Your task to perform on an android device: What's the weather going to be this weekend? Image 0: 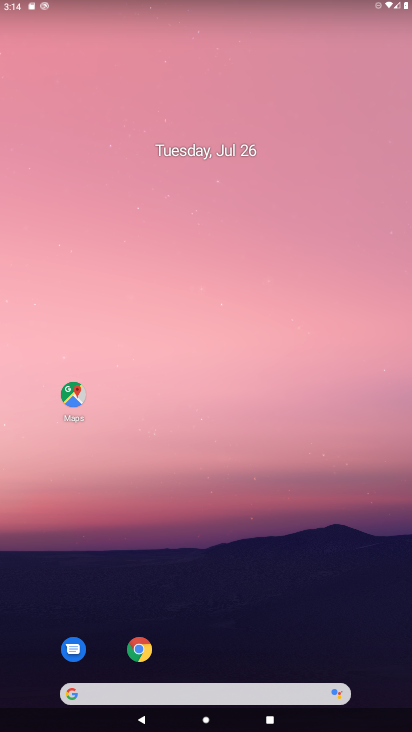
Step 0: drag from (210, 688) to (198, 198)
Your task to perform on an android device: What's the weather going to be this weekend? Image 1: 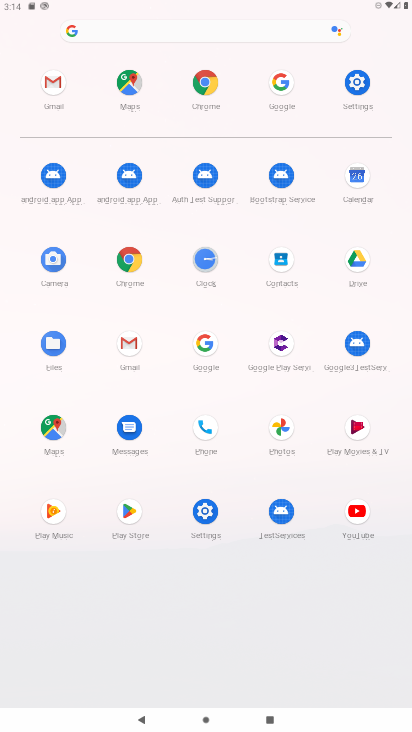
Step 1: click (134, 272)
Your task to perform on an android device: What's the weather going to be this weekend? Image 2: 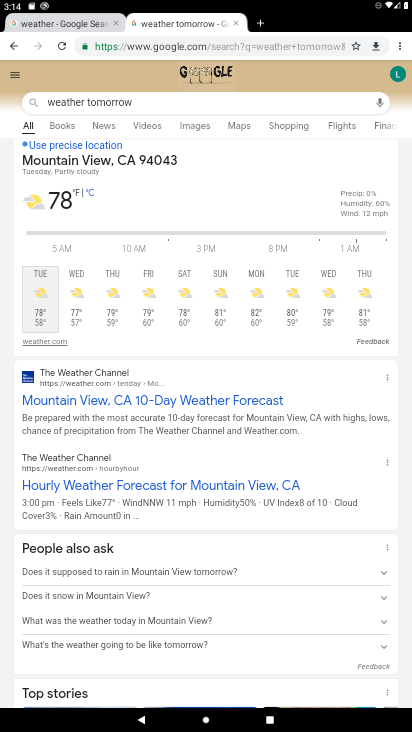
Step 2: click (157, 49)
Your task to perform on an android device: What's the weather going to be this weekend? Image 3: 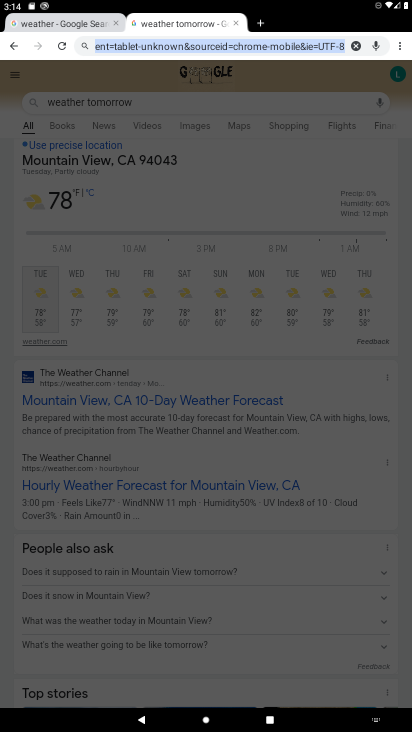
Step 3: type "weather this weekend"
Your task to perform on an android device: What's the weather going to be this weekend? Image 4: 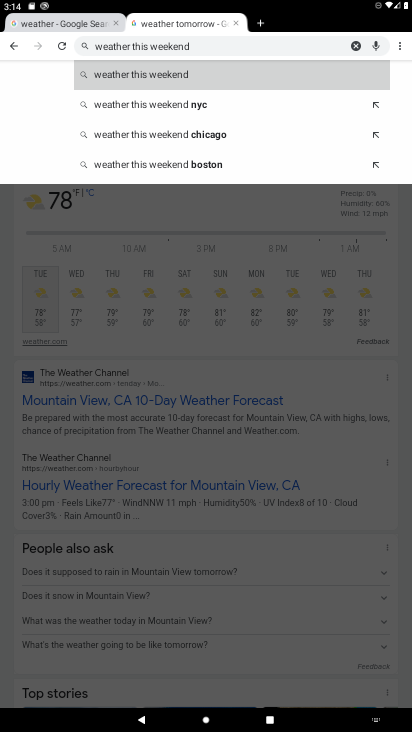
Step 4: click (181, 78)
Your task to perform on an android device: What's the weather going to be this weekend? Image 5: 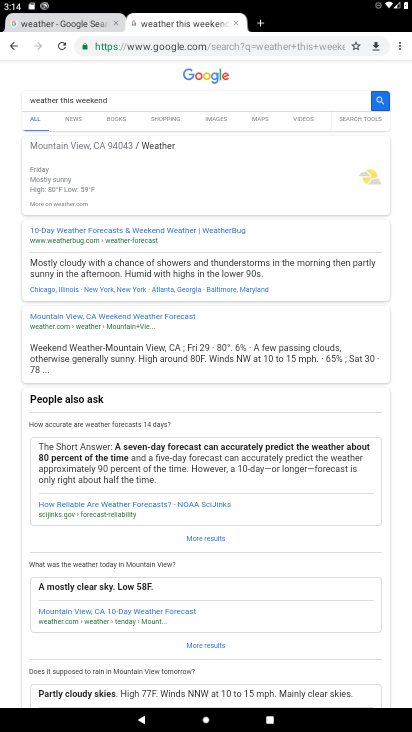
Step 5: task complete